Your task to perform on an android device: Open Youtube and go to "Your channel" Image 0: 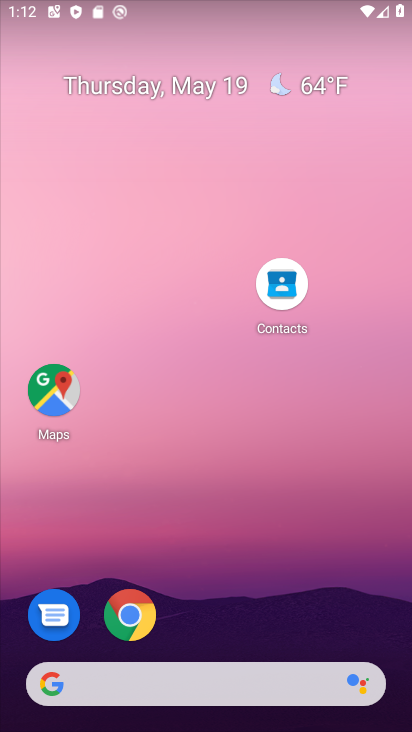
Step 0: drag from (297, 611) to (294, 160)
Your task to perform on an android device: Open Youtube and go to "Your channel" Image 1: 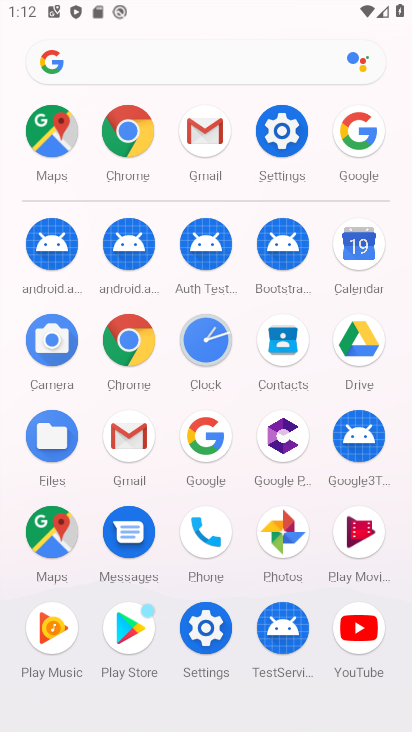
Step 1: click (352, 629)
Your task to perform on an android device: Open Youtube and go to "Your channel" Image 2: 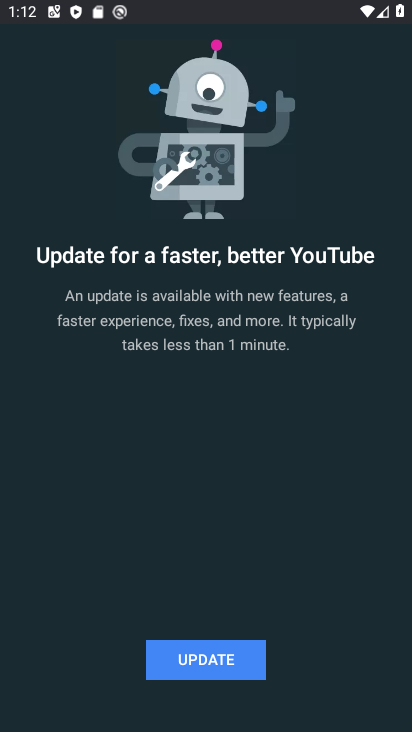
Step 2: press home button
Your task to perform on an android device: Open Youtube and go to "Your channel" Image 3: 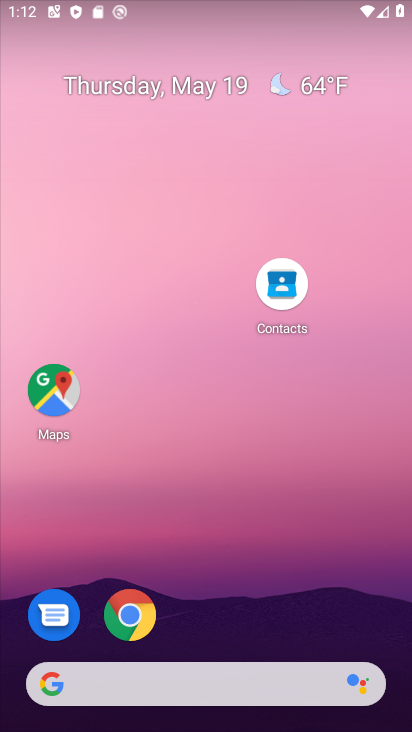
Step 3: drag from (253, 634) to (193, 0)
Your task to perform on an android device: Open Youtube and go to "Your channel" Image 4: 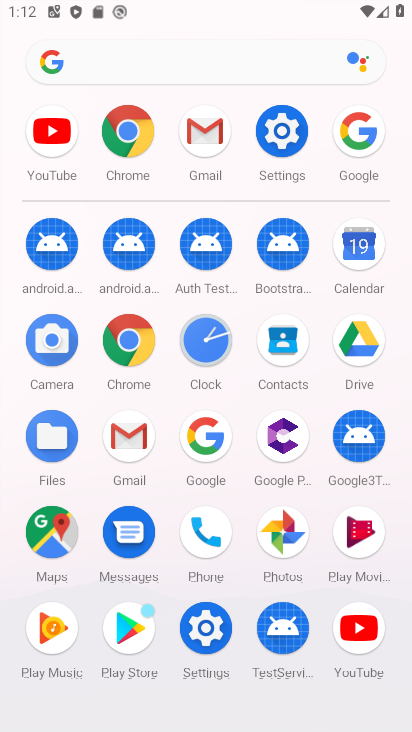
Step 4: drag from (258, 527) to (233, 252)
Your task to perform on an android device: Open Youtube and go to "Your channel" Image 5: 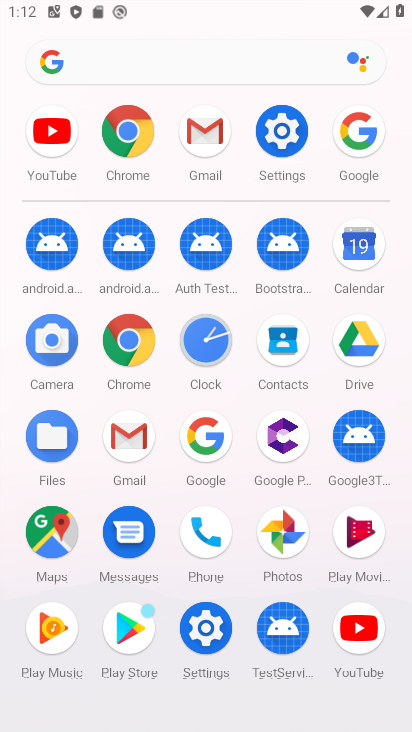
Step 5: click (377, 613)
Your task to perform on an android device: Open Youtube and go to "Your channel" Image 6: 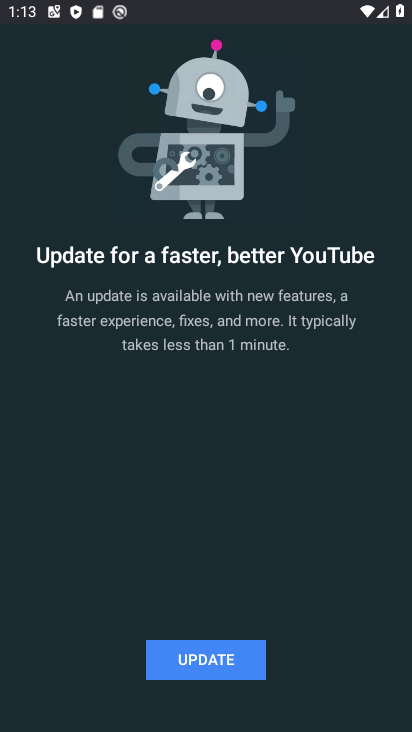
Step 6: click (228, 676)
Your task to perform on an android device: Open Youtube and go to "Your channel" Image 7: 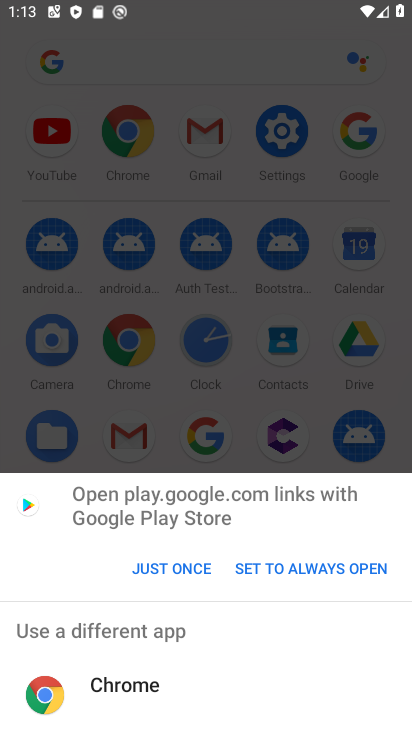
Step 7: click (191, 566)
Your task to perform on an android device: Open Youtube and go to "Your channel" Image 8: 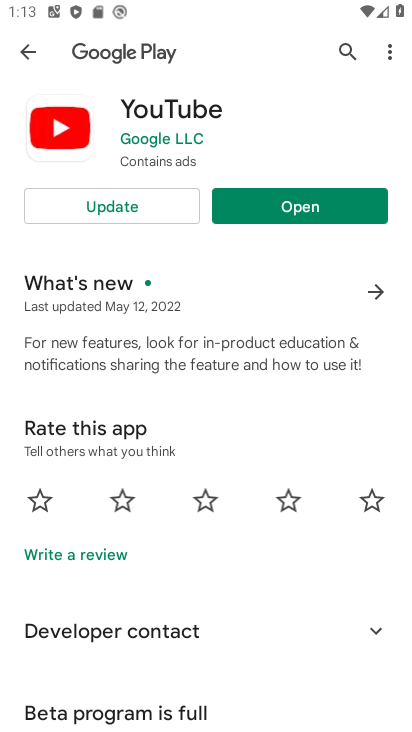
Step 8: click (356, 192)
Your task to perform on an android device: Open Youtube and go to "Your channel" Image 9: 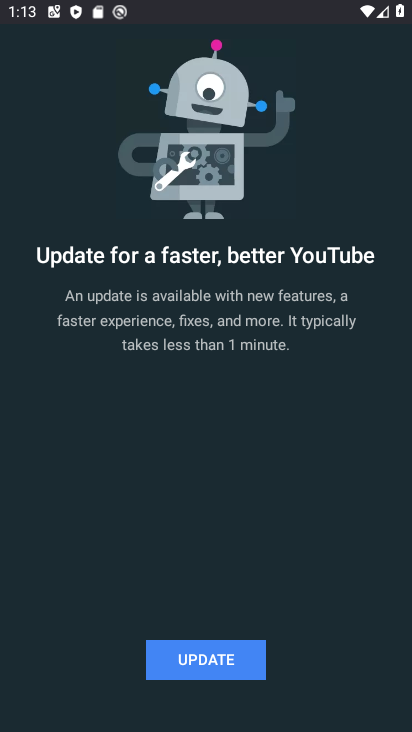
Step 9: task complete